Your task to perform on an android device: Check the weather Image 0: 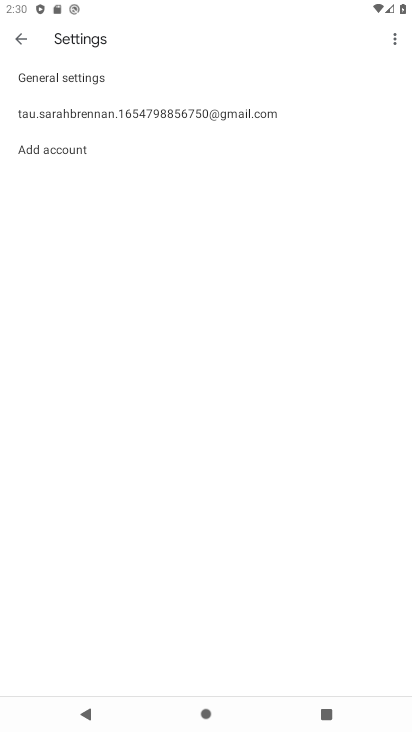
Step 0: press home button
Your task to perform on an android device: Check the weather Image 1: 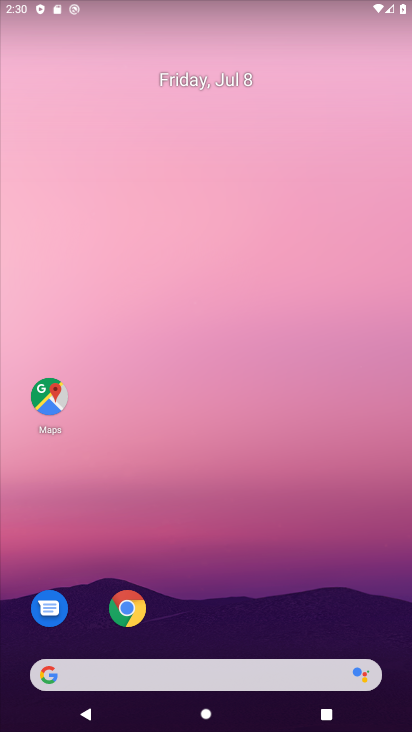
Step 1: drag from (207, 595) to (200, 194)
Your task to perform on an android device: Check the weather Image 2: 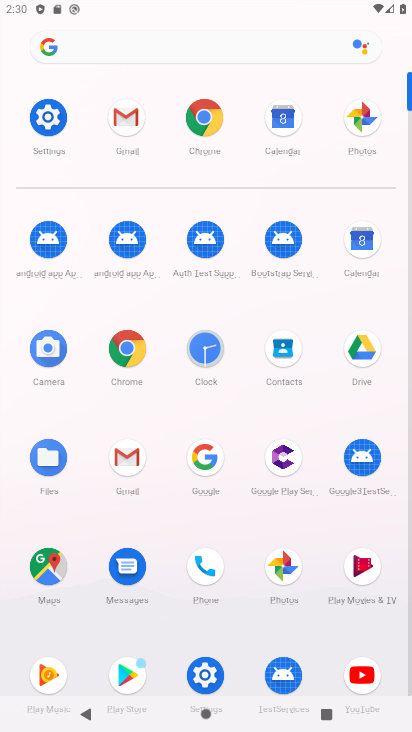
Step 2: click (205, 459)
Your task to perform on an android device: Check the weather Image 3: 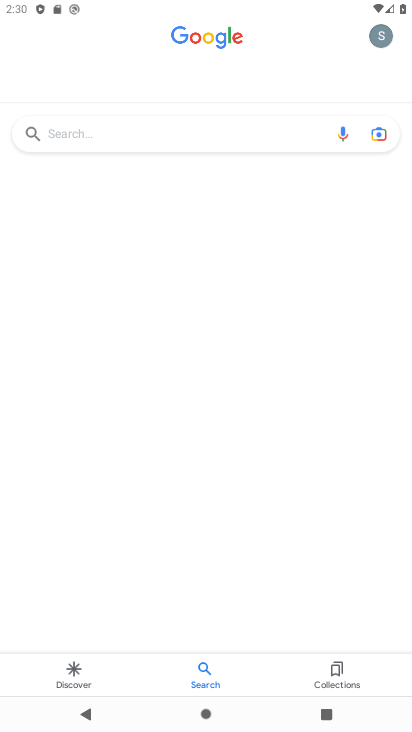
Step 3: click (141, 147)
Your task to perform on an android device: Check the weather Image 4: 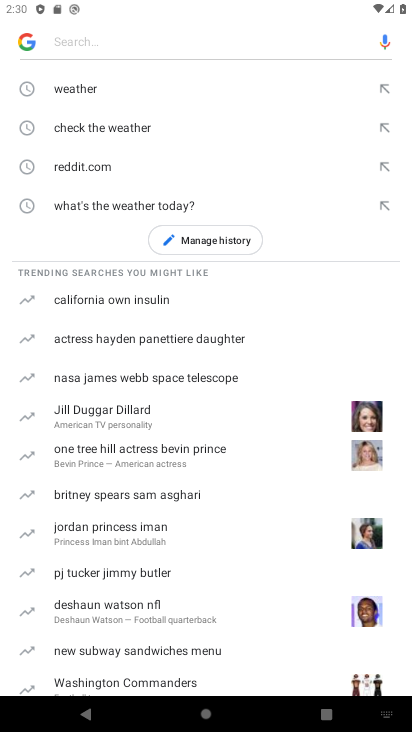
Step 4: click (94, 98)
Your task to perform on an android device: Check the weather Image 5: 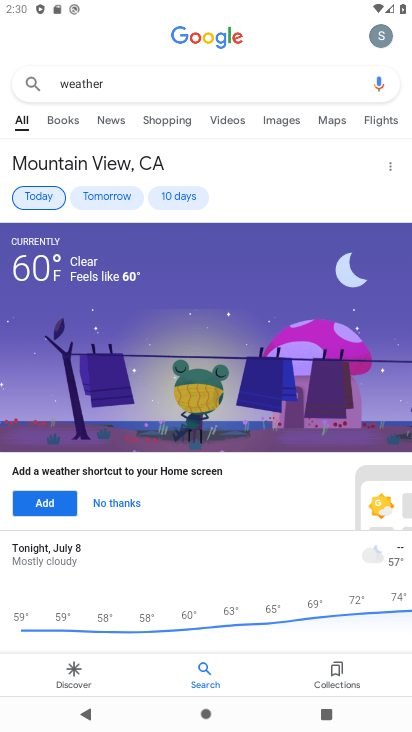
Step 5: task complete